Your task to perform on an android device: Is it going to rain tomorrow? Image 0: 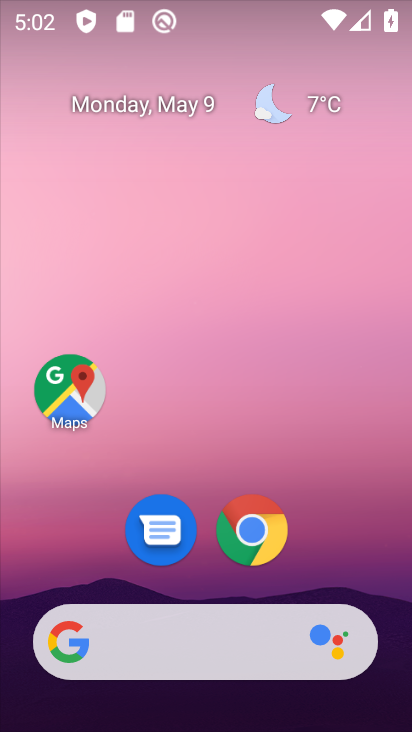
Step 0: click (275, 101)
Your task to perform on an android device: Is it going to rain tomorrow? Image 1: 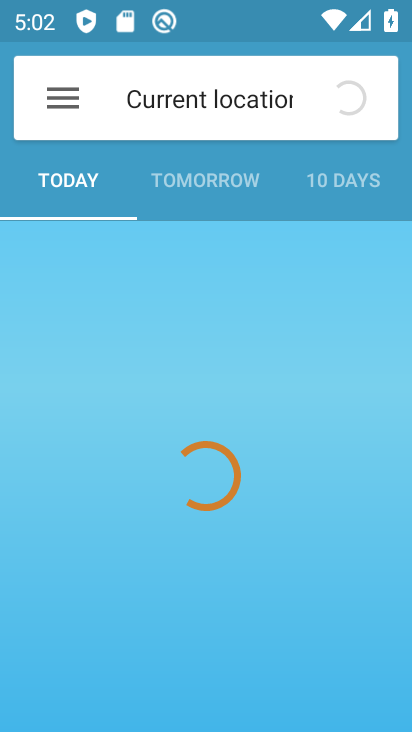
Step 1: click (203, 186)
Your task to perform on an android device: Is it going to rain tomorrow? Image 2: 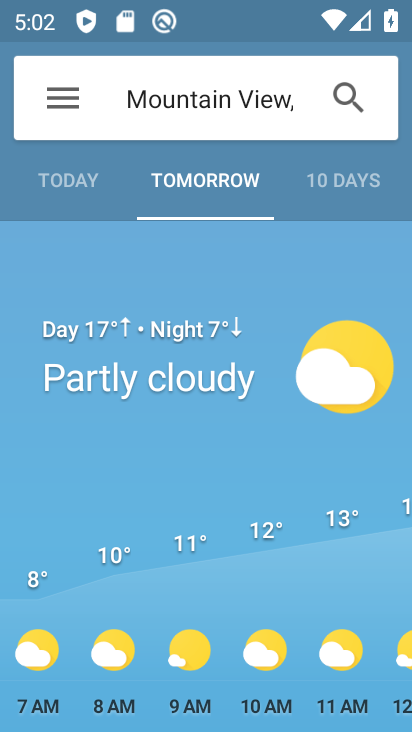
Step 2: task complete